Your task to perform on an android device: change the clock display to show seconds Image 0: 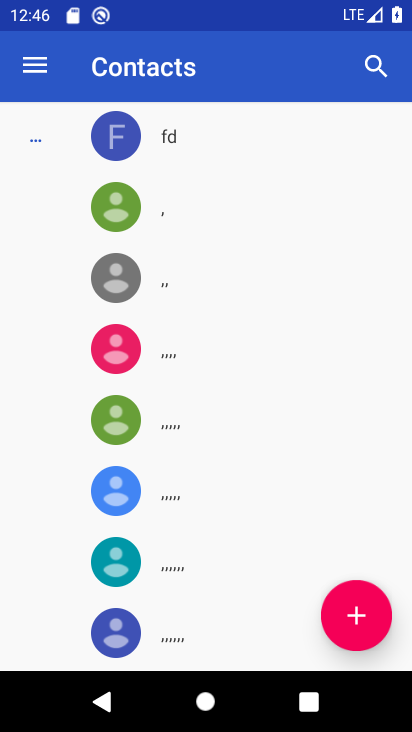
Step 0: press home button
Your task to perform on an android device: change the clock display to show seconds Image 1: 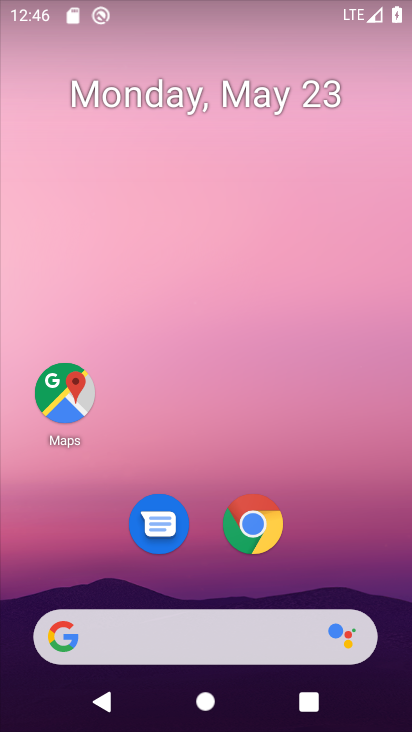
Step 1: drag from (220, 434) to (230, 25)
Your task to perform on an android device: change the clock display to show seconds Image 2: 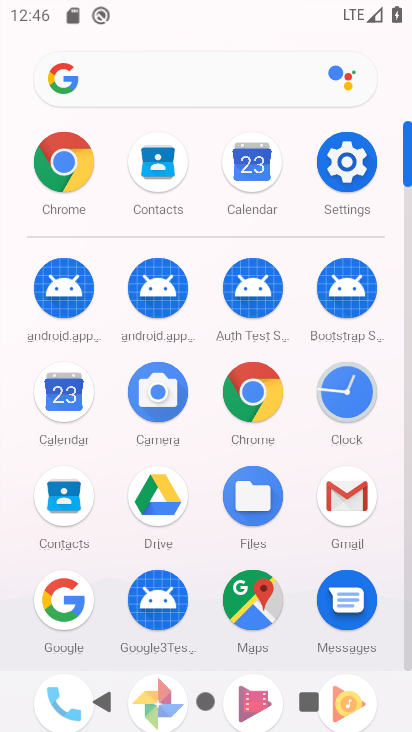
Step 2: click (351, 388)
Your task to perform on an android device: change the clock display to show seconds Image 3: 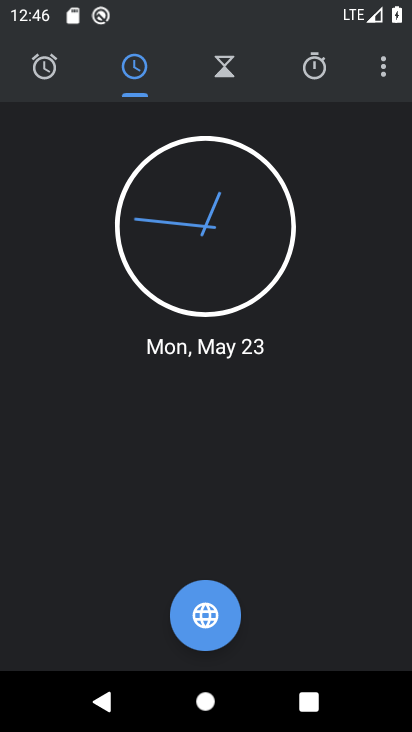
Step 3: click (380, 74)
Your task to perform on an android device: change the clock display to show seconds Image 4: 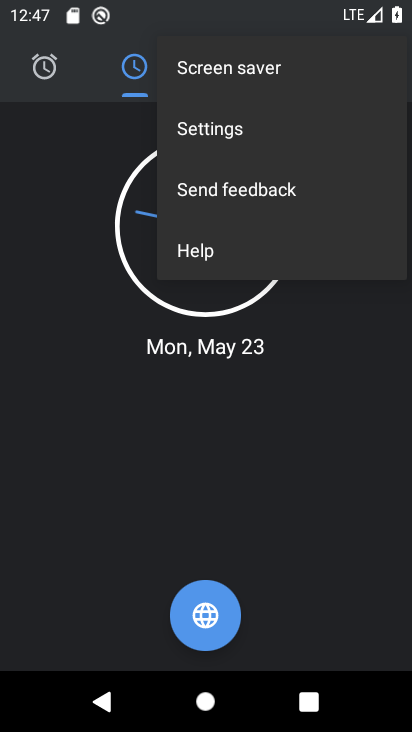
Step 4: click (325, 124)
Your task to perform on an android device: change the clock display to show seconds Image 5: 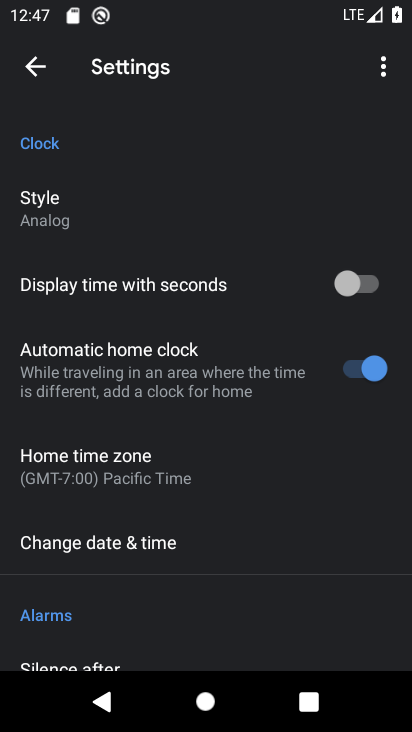
Step 5: click (364, 284)
Your task to perform on an android device: change the clock display to show seconds Image 6: 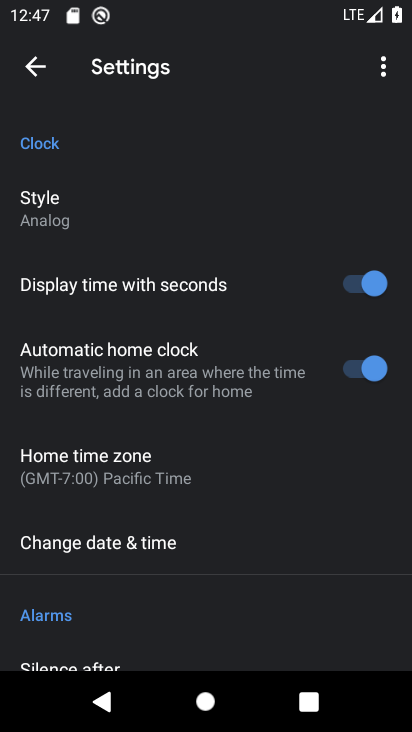
Step 6: task complete